Your task to perform on an android device: Go to Maps Image 0: 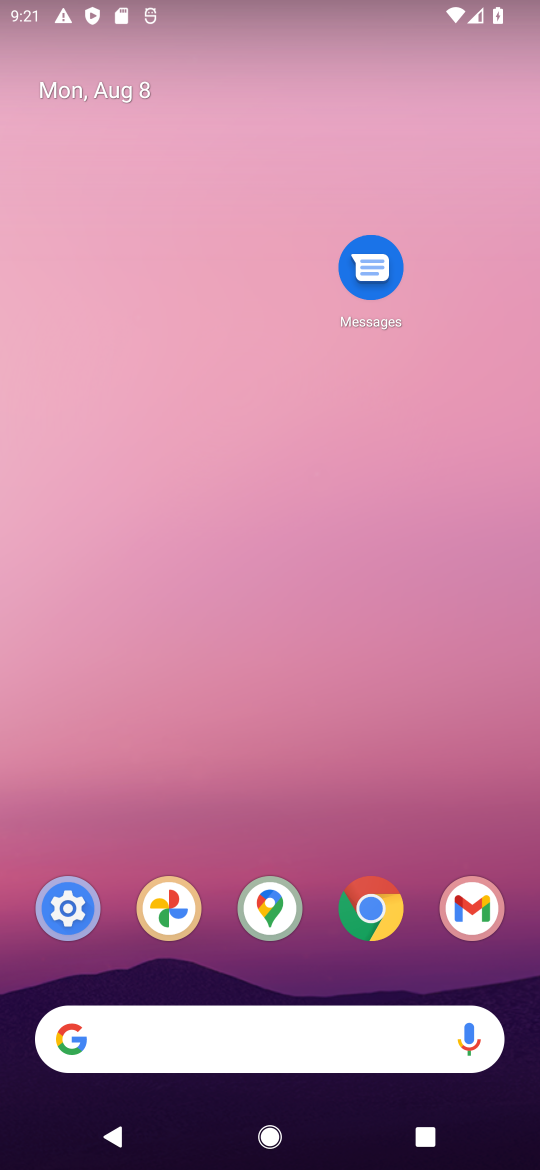
Step 0: click (282, 919)
Your task to perform on an android device: Go to Maps Image 1: 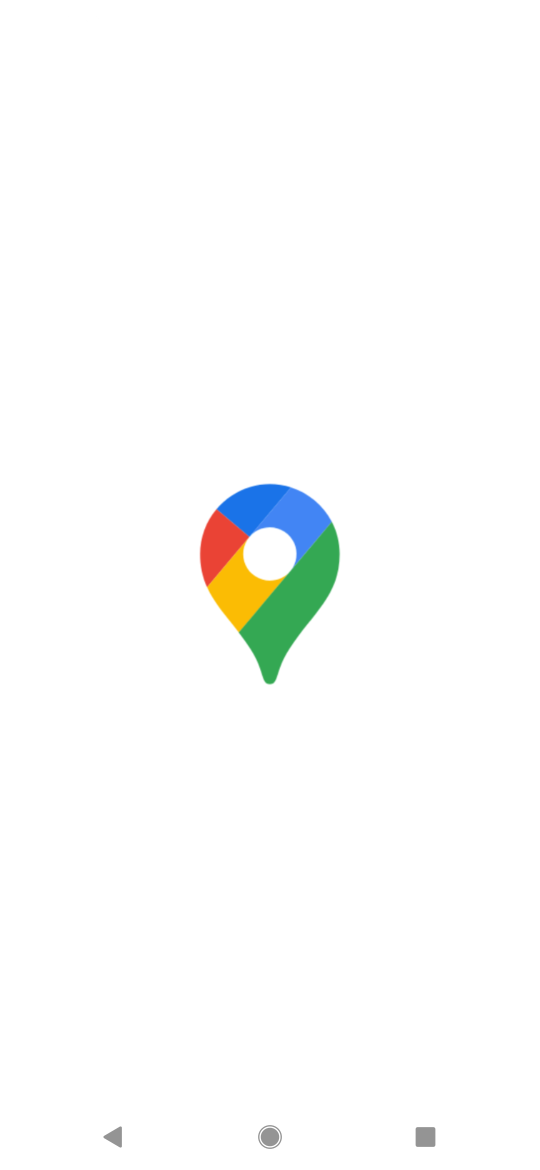
Step 1: click (167, 750)
Your task to perform on an android device: Go to Maps Image 2: 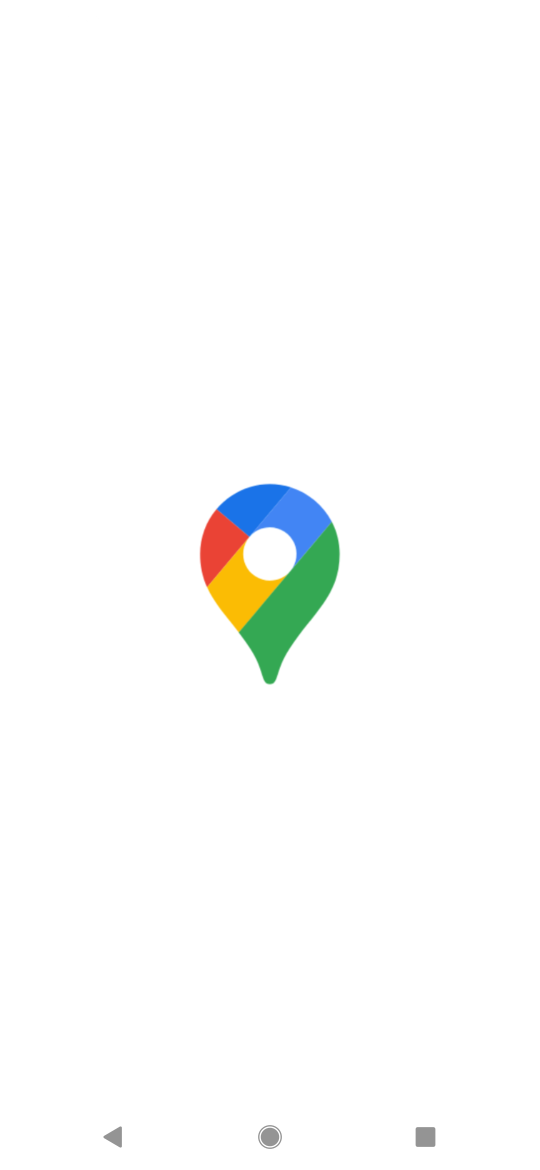
Step 2: click (167, 750)
Your task to perform on an android device: Go to Maps Image 3: 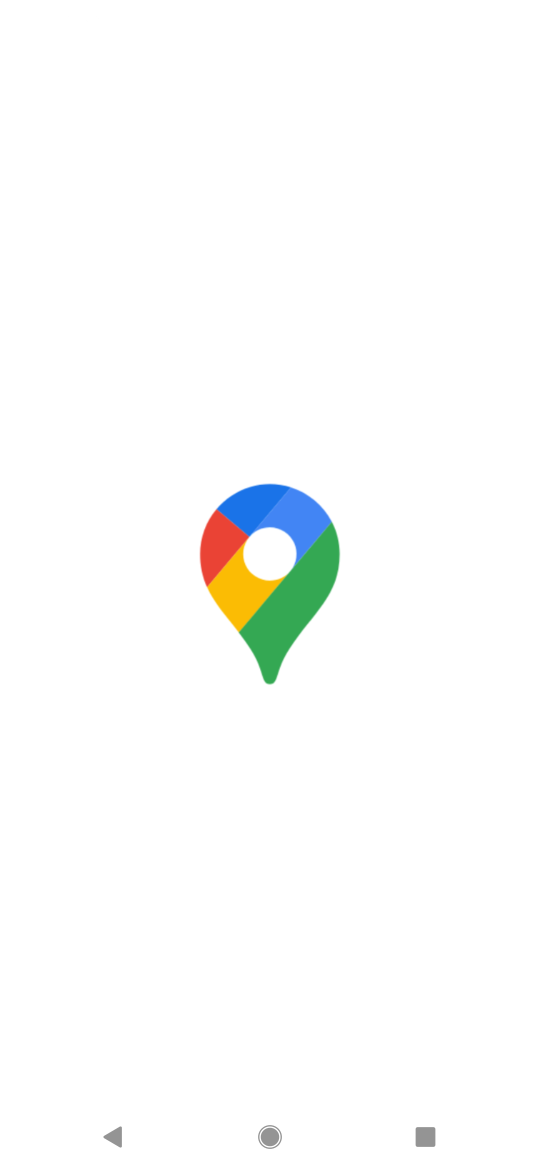
Step 3: click (167, 750)
Your task to perform on an android device: Go to Maps Image 4: 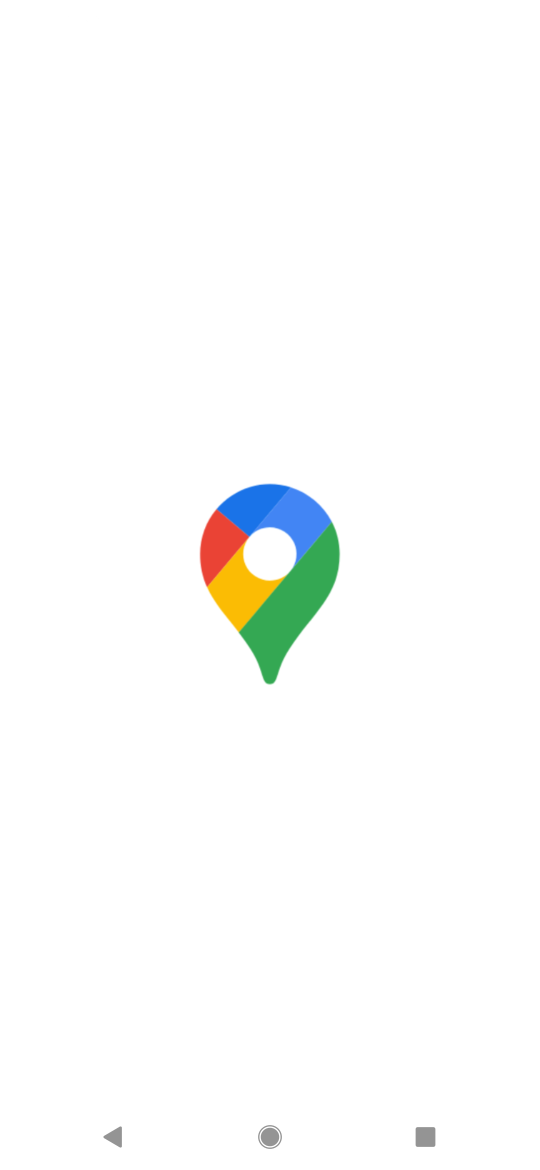
Step 4: task complete